Your task to perform on an android device: Open the map Image 0: 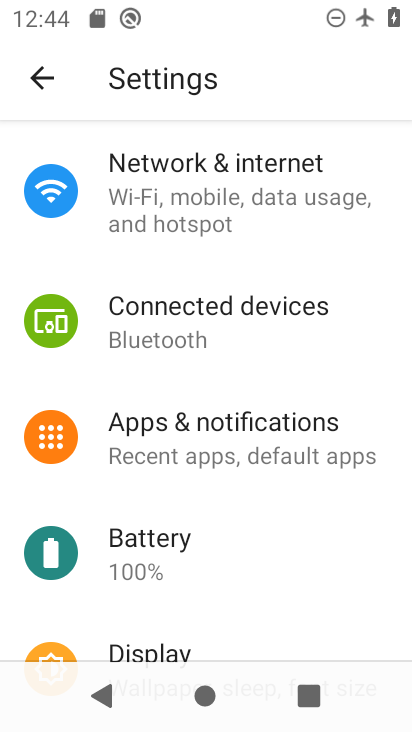
Step 0: press home button
Your task to perform on an android device: Open the map Image 1: 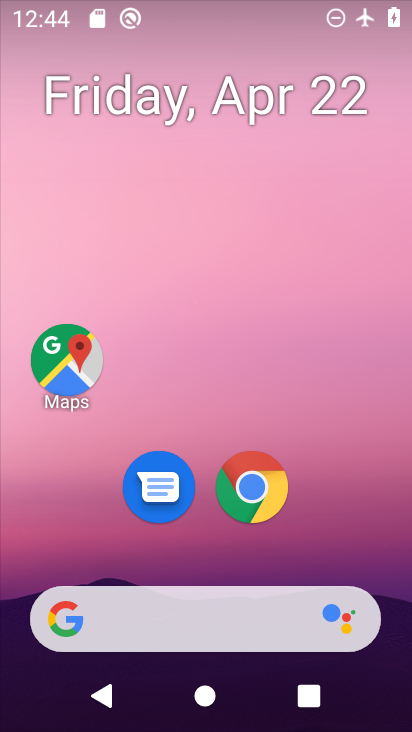
Step 1: drag from (331, 480) to (311, 228)
Your task to perform on an android device: Open the map Image 2: 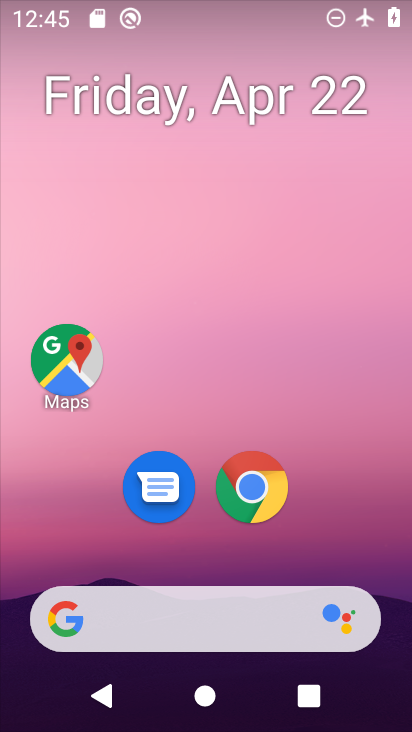
Step 2: click (59, 354)
Your task to perform on an android device: Open the map Image 3: 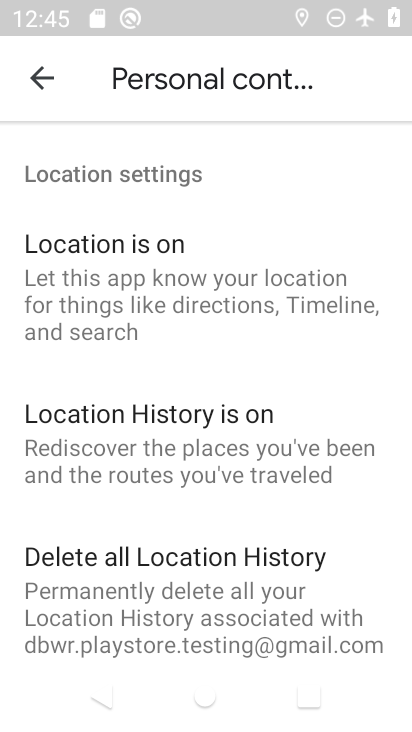
Step 3: click (38, 43)
Your task to perform on an android device: Open the map Image 4: 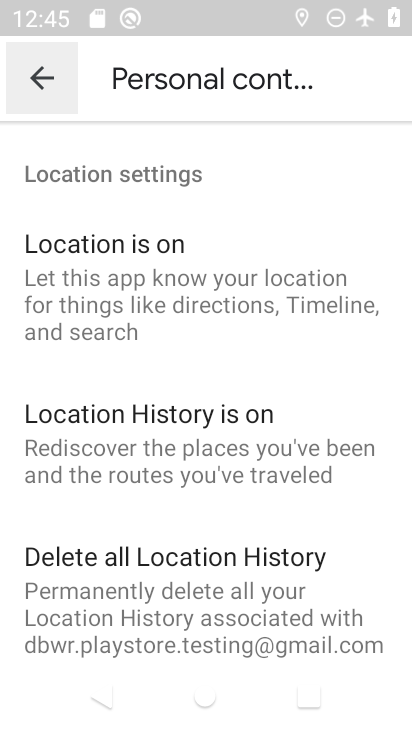
Step 4: click (32, 72)
Your task to perform on an android device: Open the map Image 5: 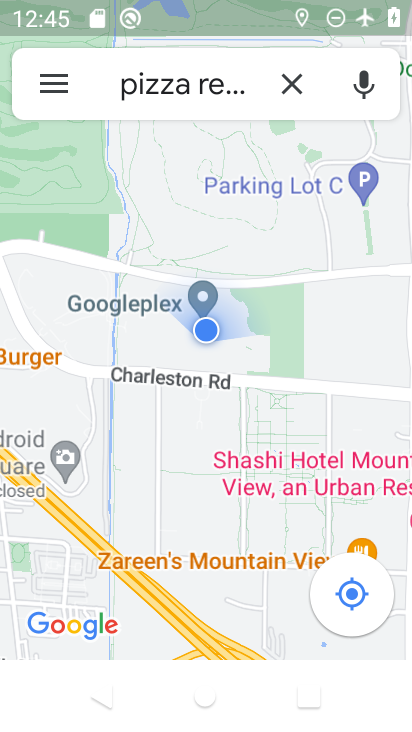
Step 5: task complete